Your task to perform on an android device: change keyboard looks Image 0: 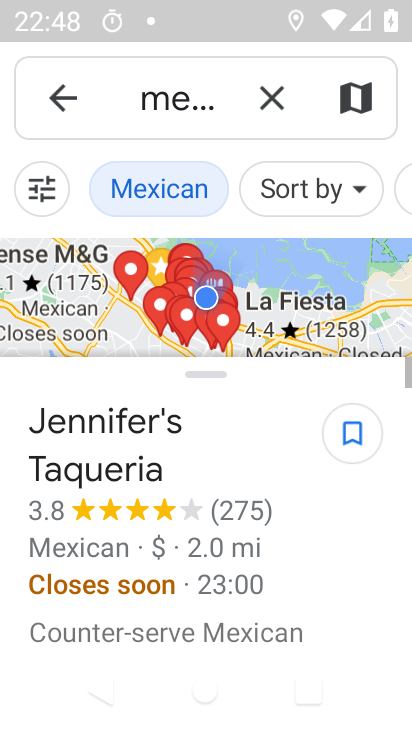
Step 0: press home button
Your task to perform on an android device: change keyboard looks Image 1: 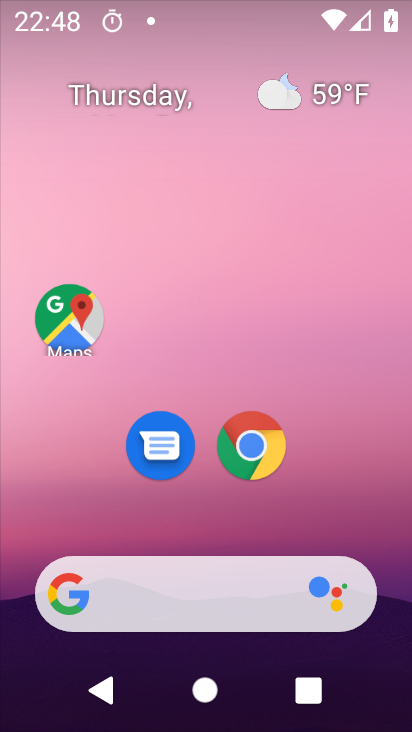
Step 1: drag from (178, 586) to (230, 13)
Your task to perform on an android device: change keyboard looks Image 2: 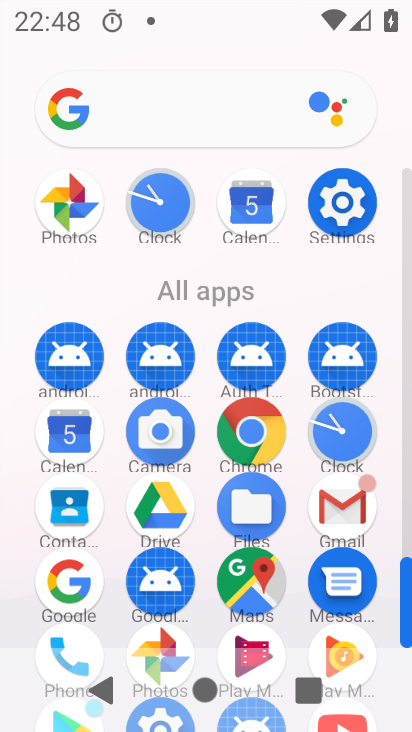
Step 2: click (335, 187)
Your task to perform on an android device: change keyboard looks Image 3: 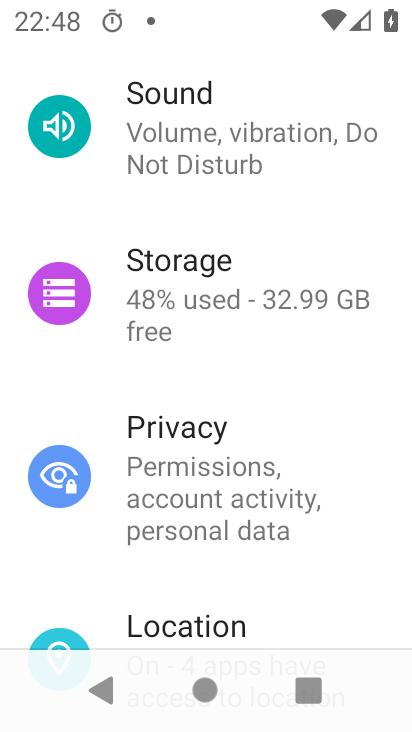
Step 3: drag from (193, 582) to (168, 32)
Your task to perform on an android device: change keyboard looks Image 4: 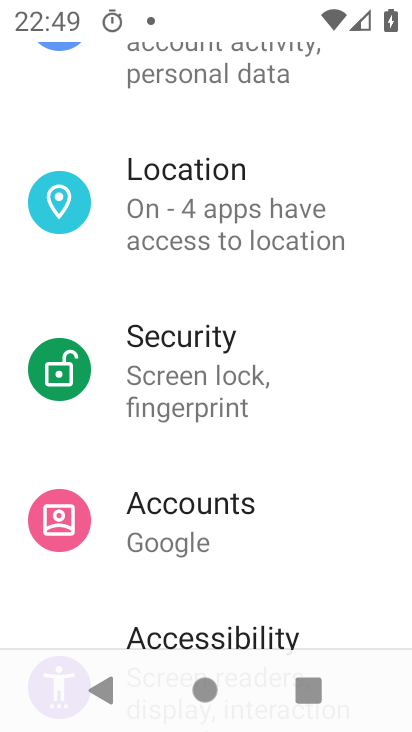
Step 4: drag from (275, 507) to (227, 46)
Your task to perform on an android device: change keyboard looks Image 5: 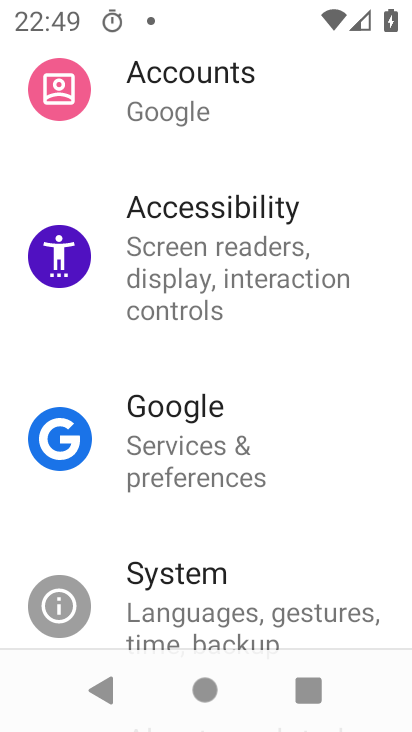
Step 5: drag from (214, 524) to (167, 143)
Your task to perform on an android device: change keyboard looks Image 6: 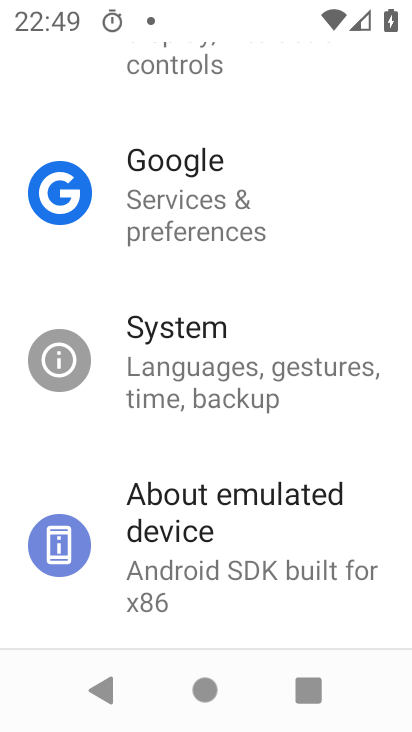
Step 6: click (201, 369)
Your task to perform on an android device: change keyboard looks Image 7: 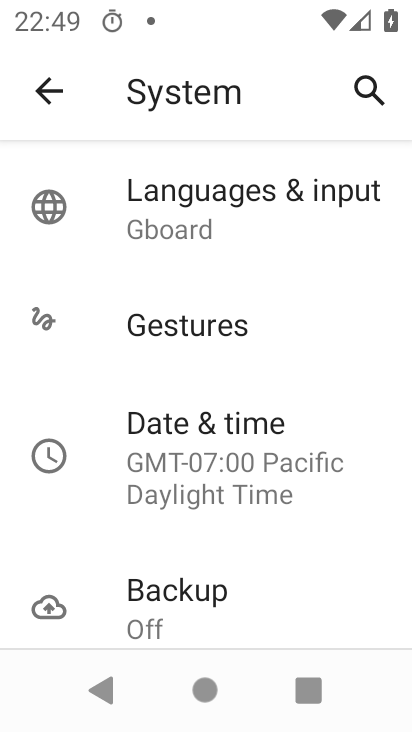
Step 7: click (222, 220)
Your task to perform on an android device: change keyboard looks Image 8: 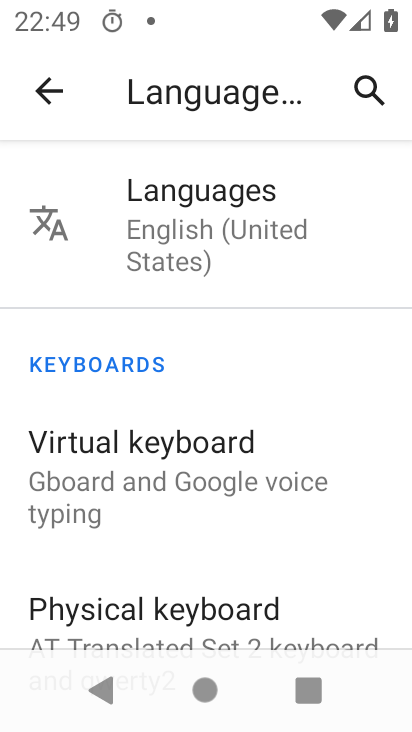
Step 8: click (146, 506)
Your task to perform on an android device: change keyboard looks Image 9: 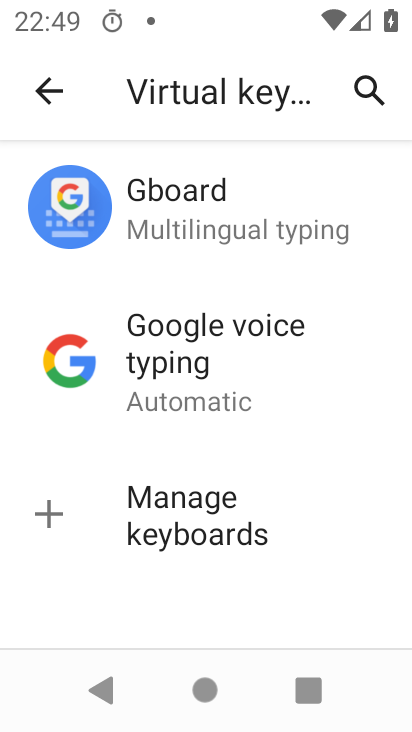
Step 9: click (222, 227)
Your task to perform on an android device: change keyboard looks Image 10: 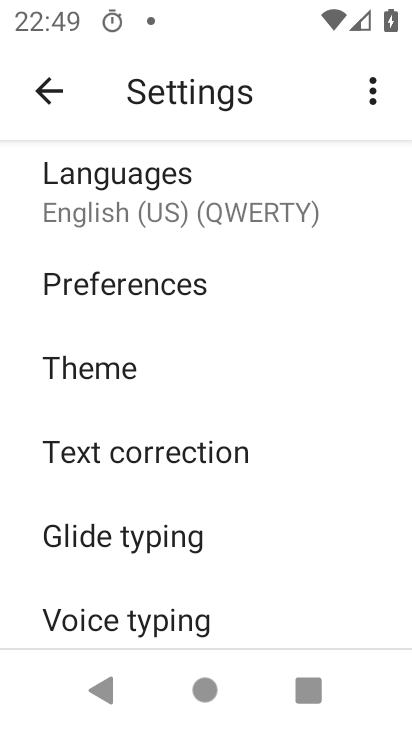
Step 10: click (120, 363)
Your task to perform on an android device: change keyboard looks Image 11: 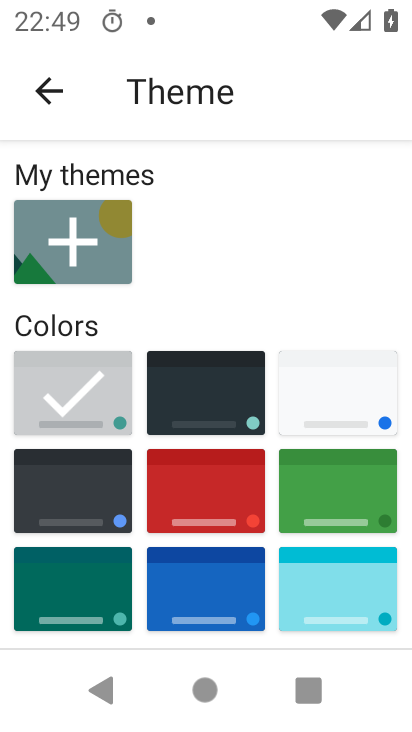
Step 11: click (194, 475)
Your task to perform on an android device: change keyboard looks Image 12: 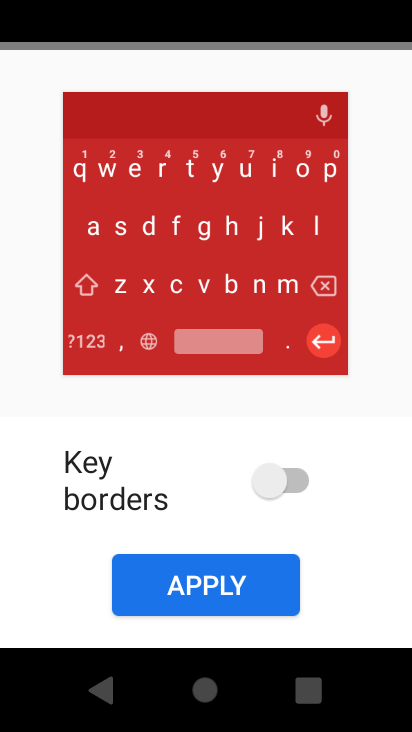
Step 12: click (254, 585)
Your task to perform on an android device: change keyboard looks Image 13: 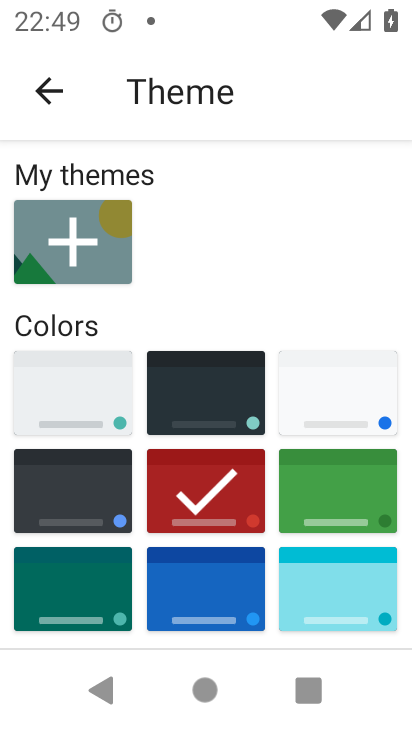
Step 13: task complete